Your task to perform on an android device: change notifications settings Image 0: 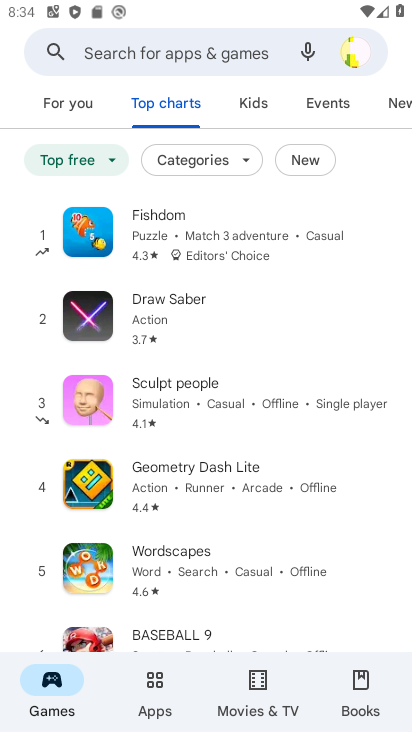
Step 0: press home button
Your task to perform on an android device: change notifications settings Image 1: 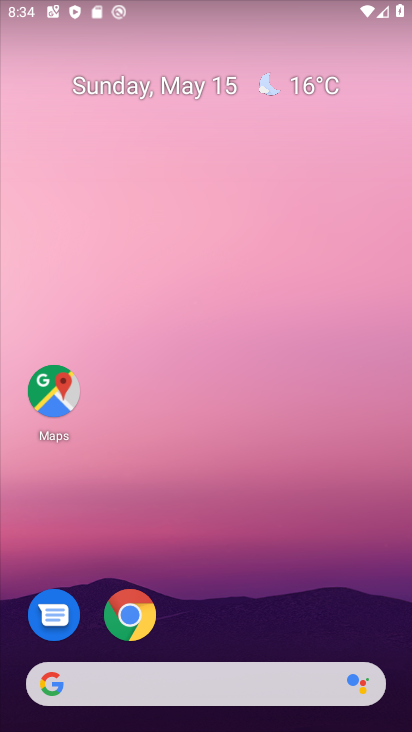
Step 1: drag from (324, 650) to (285, 62)
Your task to perform on an android device: change notifications settings Image 2: 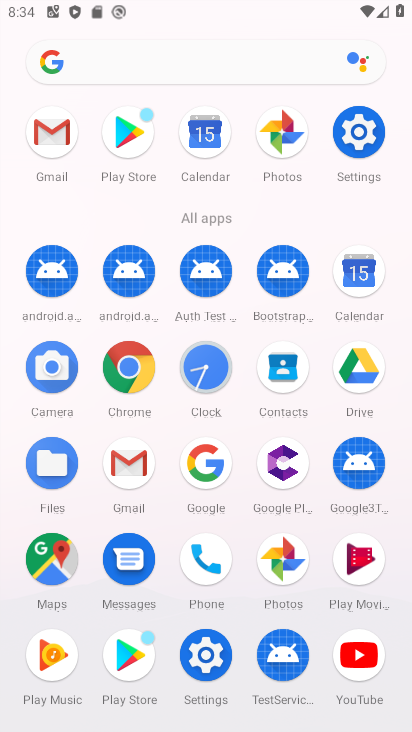
Step 2: click (377, 134)
Your task to perform on an android device: change notifications settings Image 3: 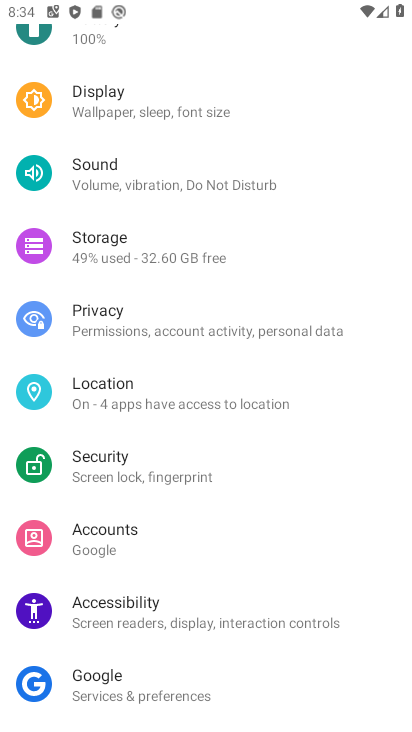
Step 3: drag from (225, 138) to (188, 607)
Your task to perform on an android device: change notifications settings Image 4: 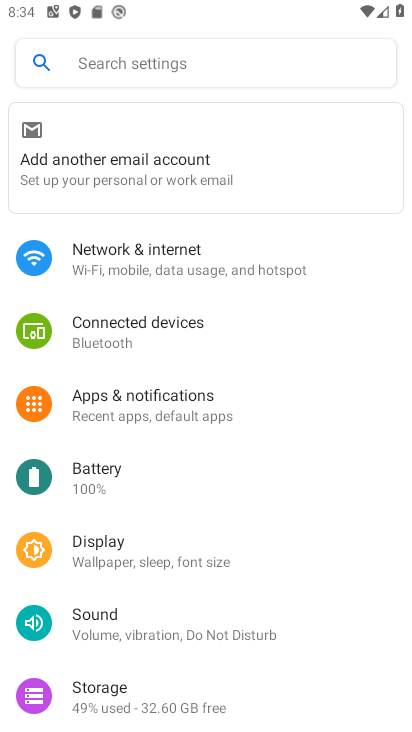
Step 4: click (154, 411)
Your task to perform on an android device: change notifications settings Image 5: 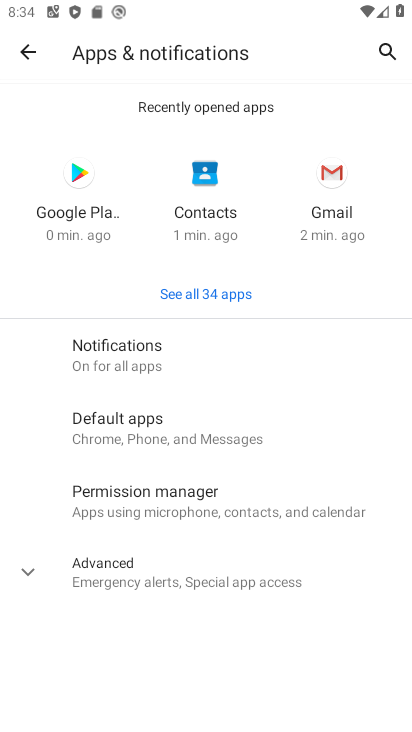
Step 5: click (146, 351)
Your task to perform on an android device: change notifications settings Image 6: 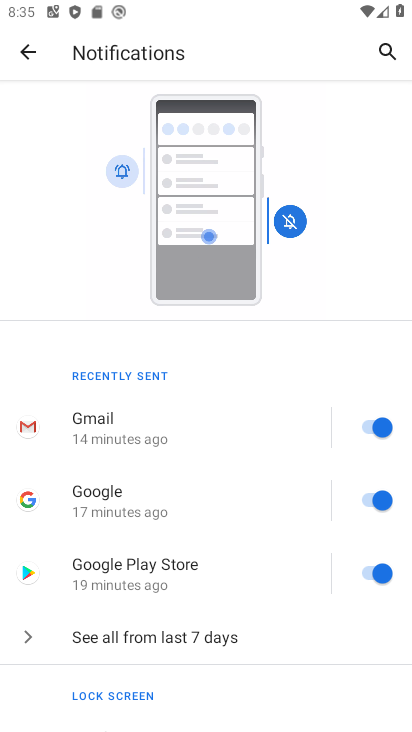
Step 6: drag from (299, 563) to (292, 142)
Your task to perform on an android device: change notifications settings Image 7: 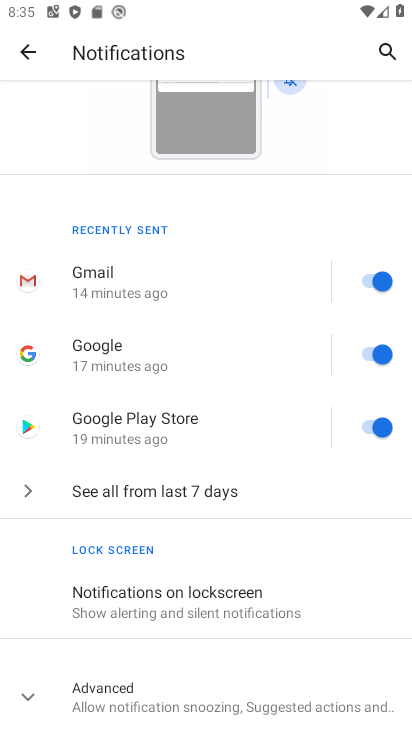
Step 7: click (224, 682)
Your task to perform on an android device: change notifications settings Image 8: 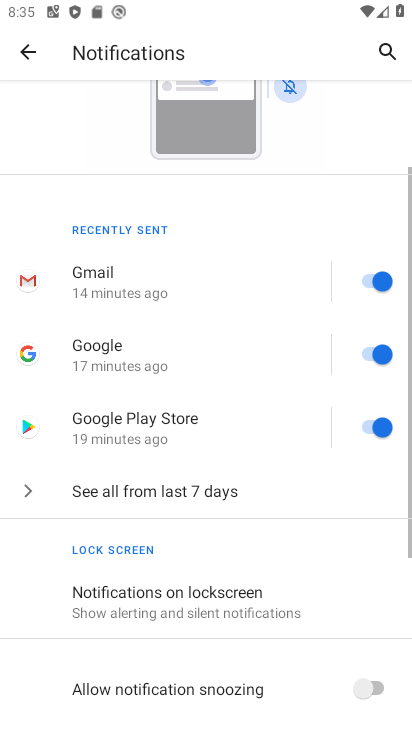
Step 8: drag from (226, 671) to (253, 304)
Your task to perform on an android device: change notifications settings Image 9: 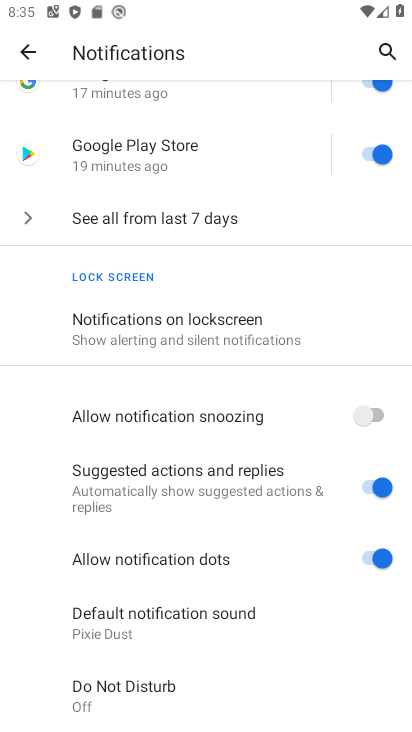
Step 9: click (382, 556)
Your task to perform on an android device: change notifications settings Image 10: 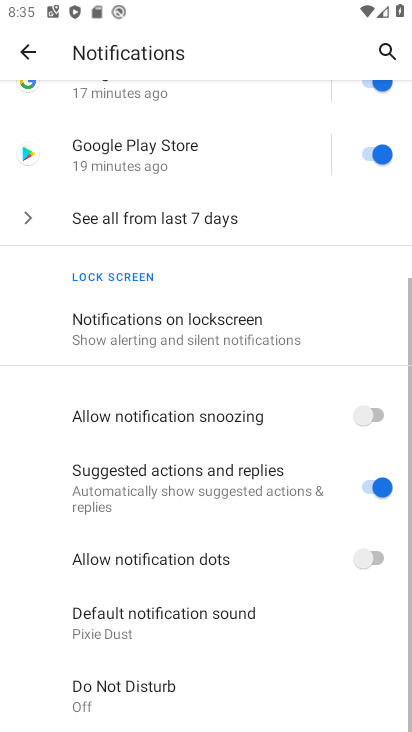
Step 10: click (376, 492)
Your task to perform on an android device: change notifications settings Image 11: 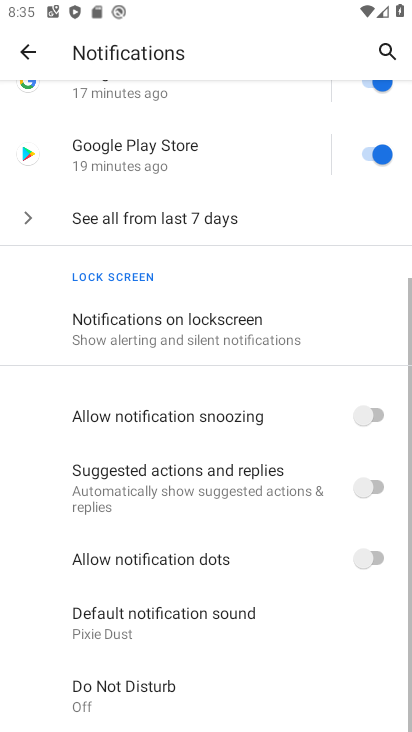
Step 11: click (364, 396)
Your task to perform on an android device: change notifications settings Image 12: 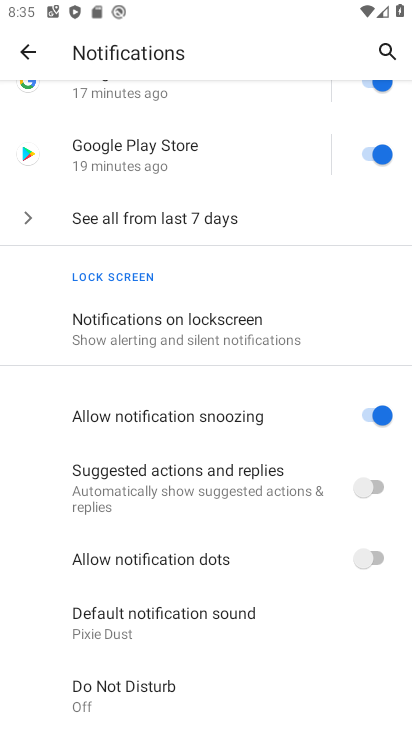
Step 12: task complete